Your task to perform on an android device: What's the weather going to be this weekend? Image 0: 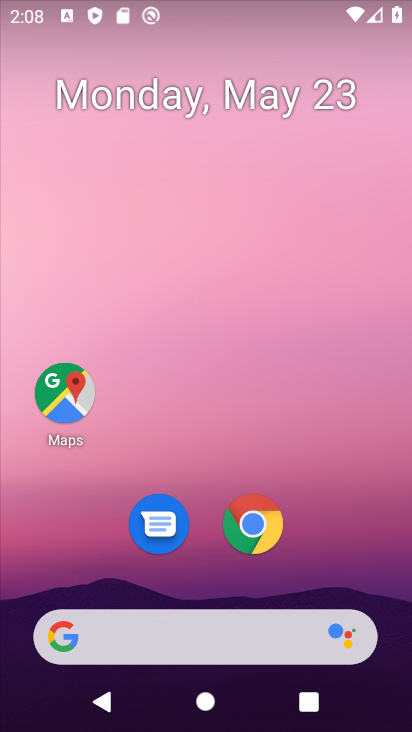
Step 0: drag from (328, 530) to (289, 35)
Your task to perform on an android device: What's the weather going to be this weekend? Image 1: 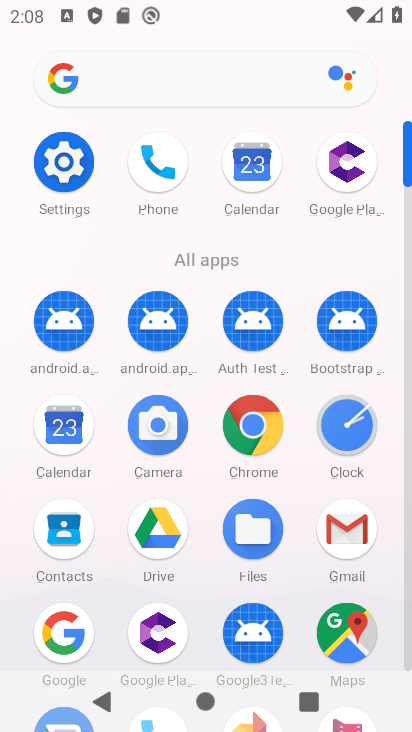
Step 1: click (76, 632)
Your task to perform on an android device: What's the weather going to be this weekend? Image 2: 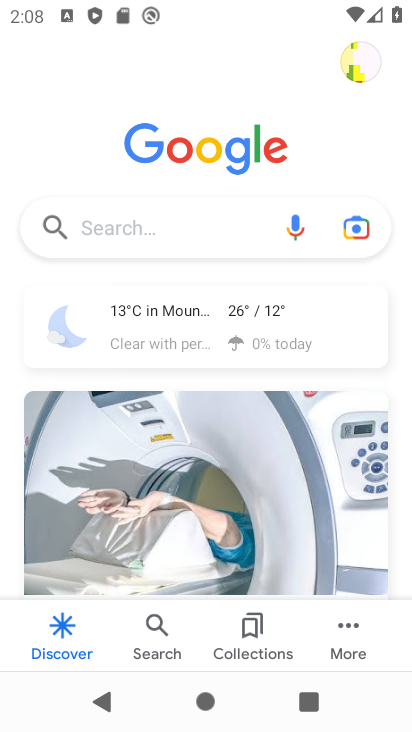
Step 2: click (239, 307)
Your task to perform on an android device: What's the weather going to be this weekend? Image 3: 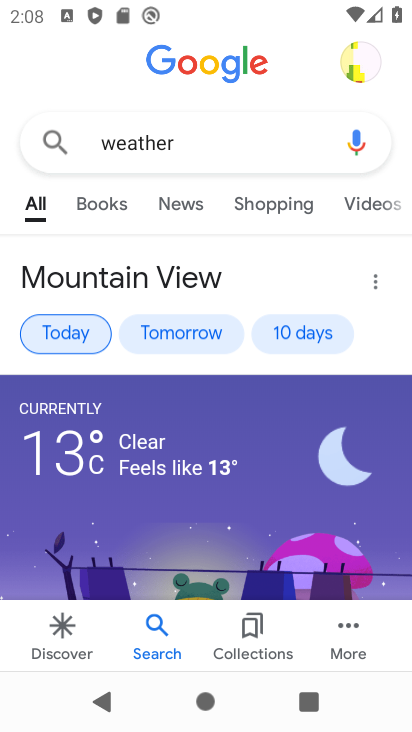
Step 3: click (85, 338)
Your task to perform on an android device: What's the weather going to be this weekend? Image 4: 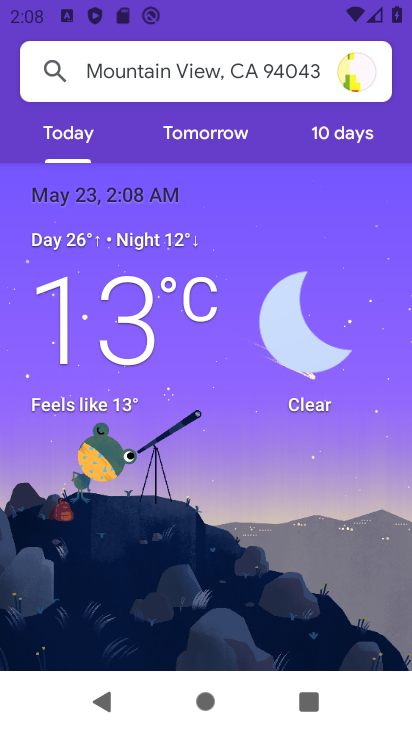
Step 4: click (344, 119)
Your task to perform on an android device: What's the weather going to be this weekend? Image 5: 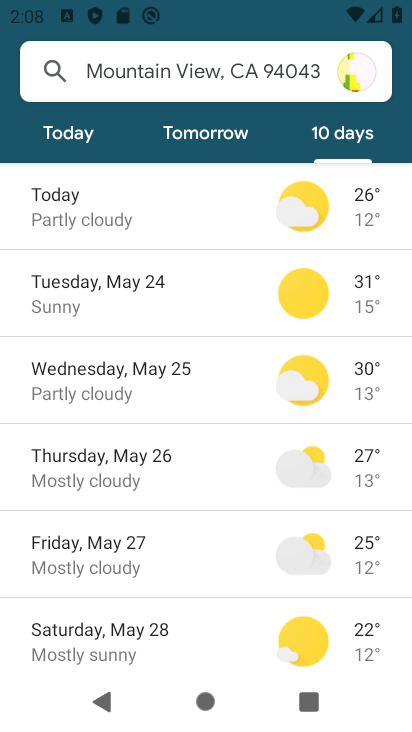
Step 5: drag from (171, 521) to (204, 167)
Your task to perform on an android device: What's the weather going to be this weekend? Image 6: 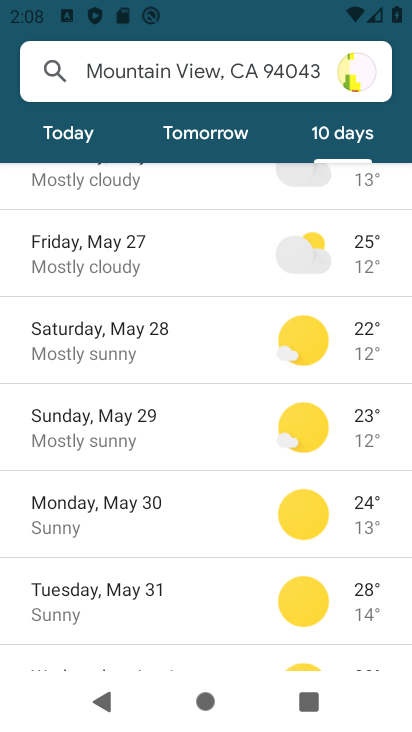
Step 6: click (136, 353)
Your task to perform on an android device: What's the weather going to be this weekend? Image 7: 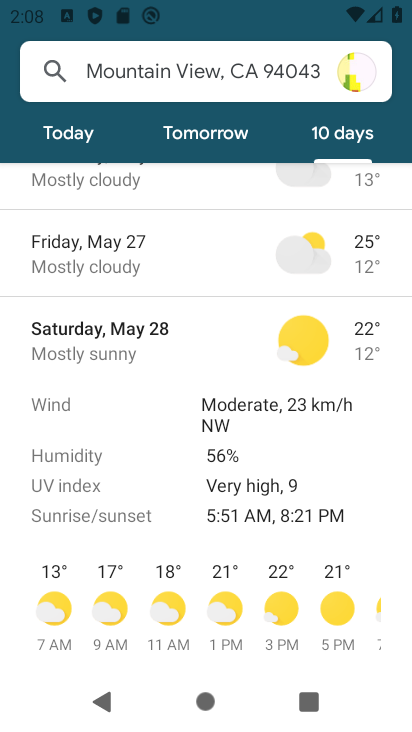
Step 7: task complete